Your task to perform on an android device: see creations saved in the google photos Image 0: 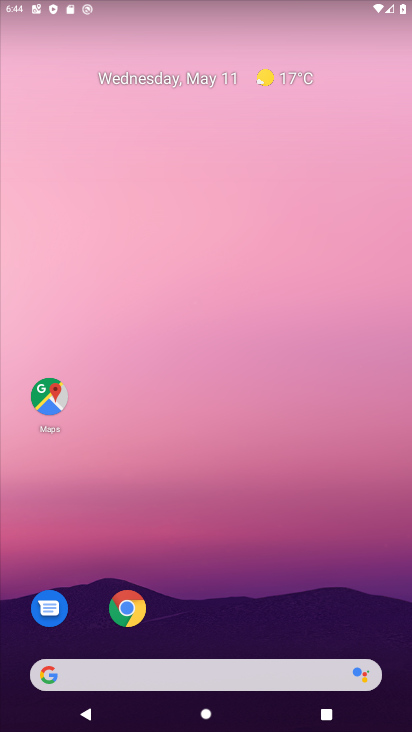
Step 0: drag from (246, 613) to (283, 170)
Your task to perform on an android device: see creations saved in the google photos Image 1: 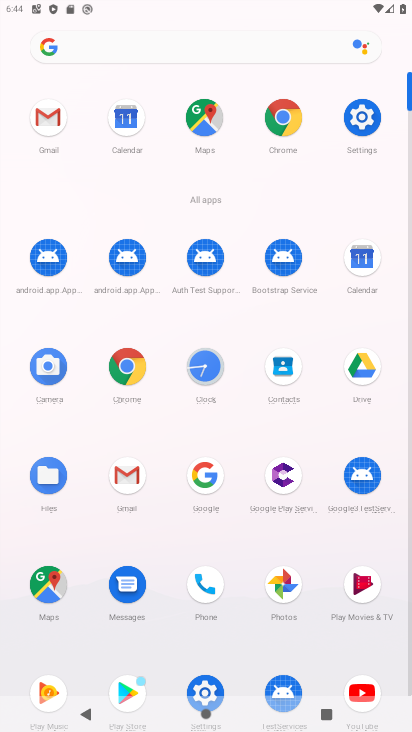
Step 1: click (275, 604)
Your task to perform on an android device: see creations saved in the google photos Image 2: 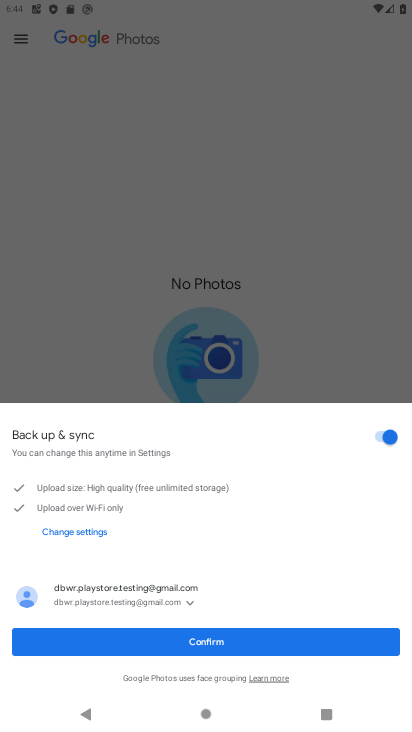
Step 2: click (254, 642)
Your task to perform on an android device: see creations saved in the google photos Image 3: 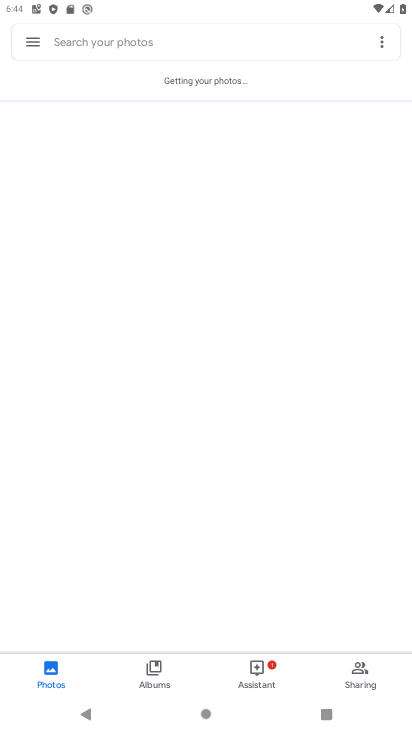
Step 3: click (354, 674)
Your task to perform on an android device: see creations saved in the google photos Image 4: 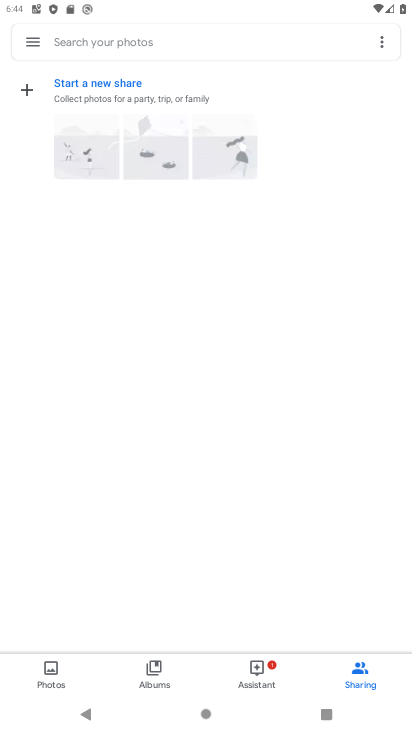
Step 4: click (37, 41)
Your task to perform on an android device: see creations saved in the google photos Image 5: 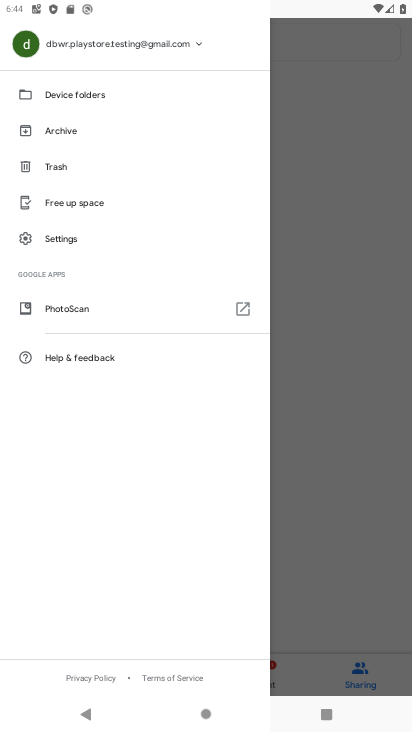
Step 5: click (49, 131)
Your task to perform on an android device: see creations saved in the google photos Image 6: 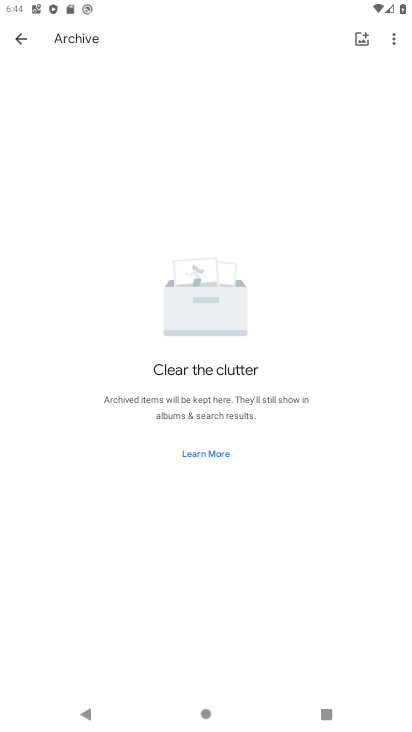
Step 6: task complete